Your task to perform on an android device: toggle location history Image 0: 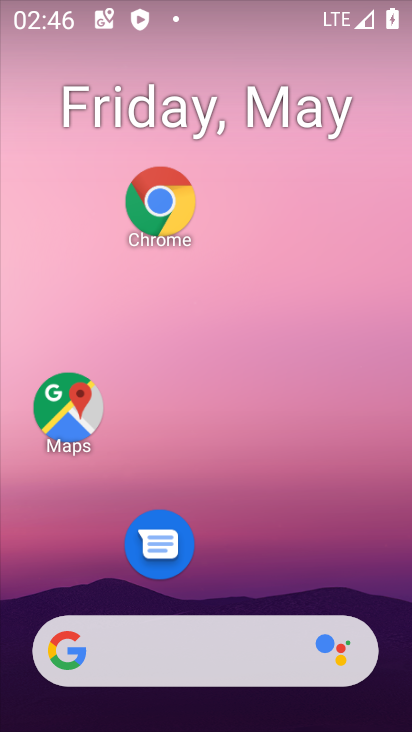
Step 0: drag from (252, 582) to (220, 247)
Your task to perform on an android device: toggle location history Image 1: 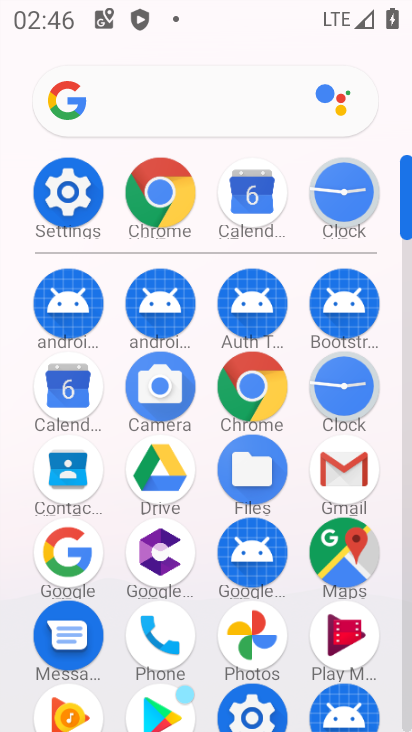
Step 1: click (67, 207)
Your task to perform on an android device: toggle location history Image 2: 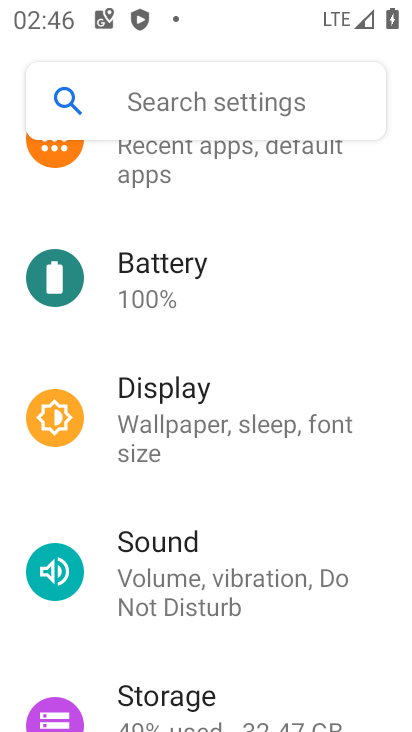
Step 2: drag from (262, 317) to (253, 611)
Your task to perform on an android device: toggle location history Image 3: 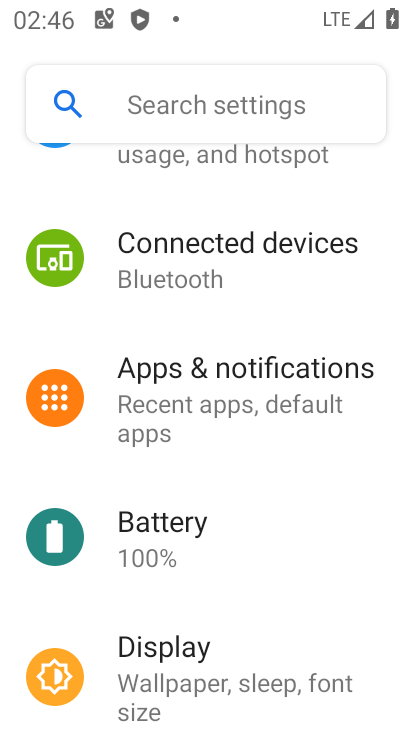
Step 3: drag from (248, 325) to (260, 575)
Your task to perform on an android device: toggle location history Image 4: 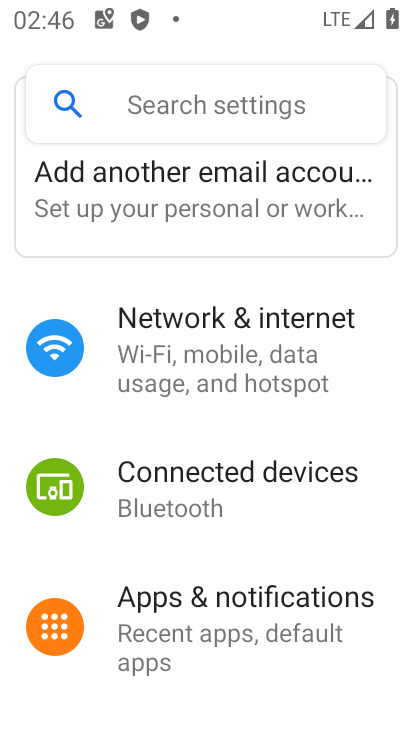
Step 4: drag from (211, 586) to (194, 209)
Your task to perform on an android device: toggle location history Image 5: 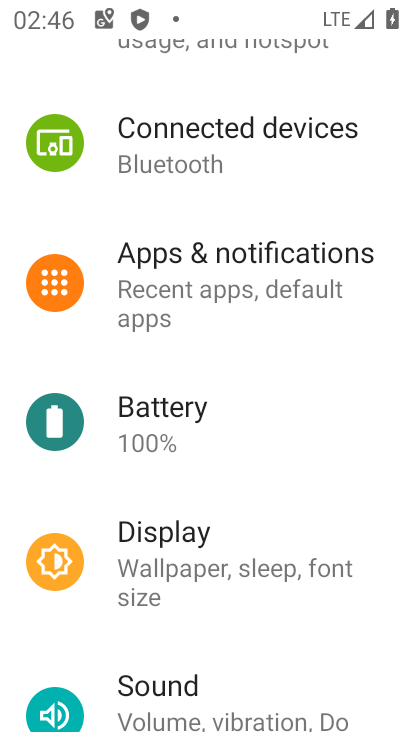
Step 5: drag from (174, 593) to (148, 238)
Your task to perform on an android device: toggle location history Image 6: 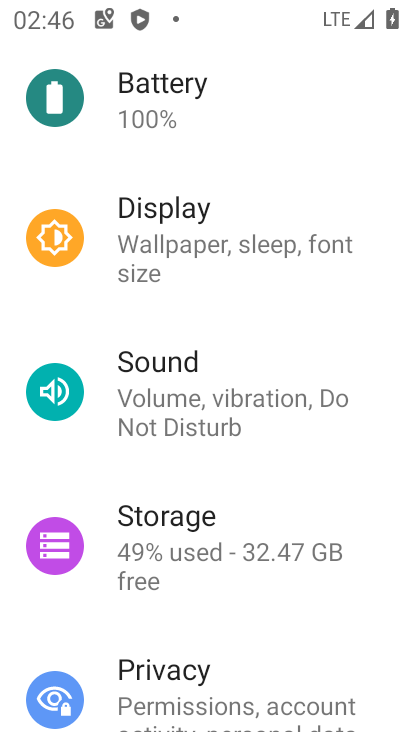
Step 6: drag from (150, 592) to (160, 292)
Your task to perform on an android device: toggle location history Image 7: 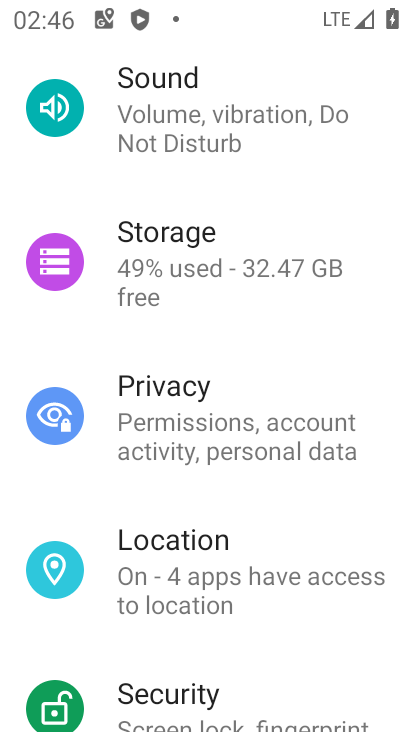
Step 7: click (209, 570)
Your task to perform on an android device: toggle location history Image 8: 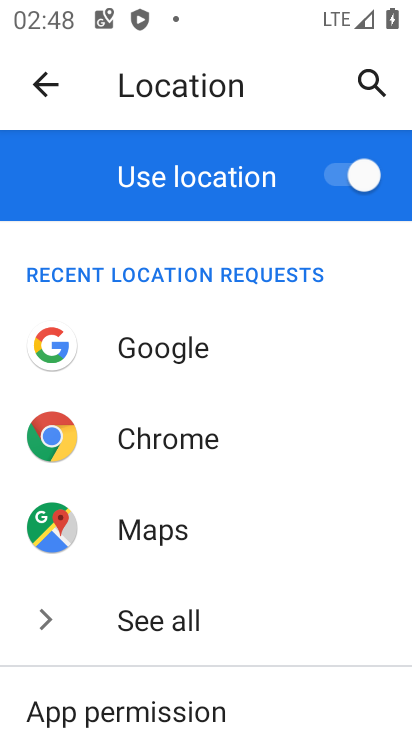
Step 8: drag from (242, 592) to (184, 320)
Your task to perform on an android device: toggle location history Image 9: 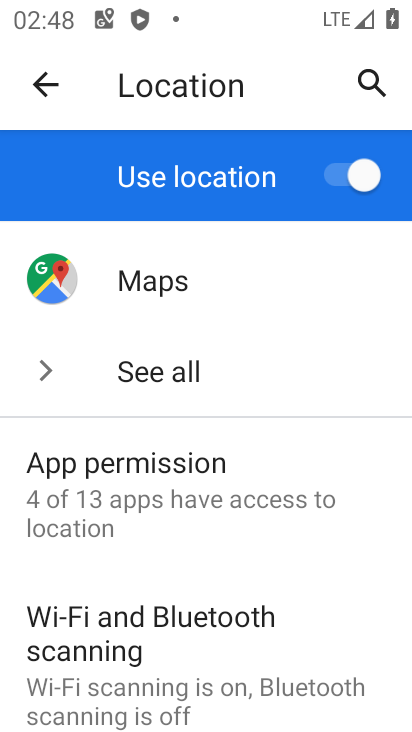
Step 9: drag from (210, 589) to (168, 242)
Your task to perform on an android device: toggle location history Image 10: 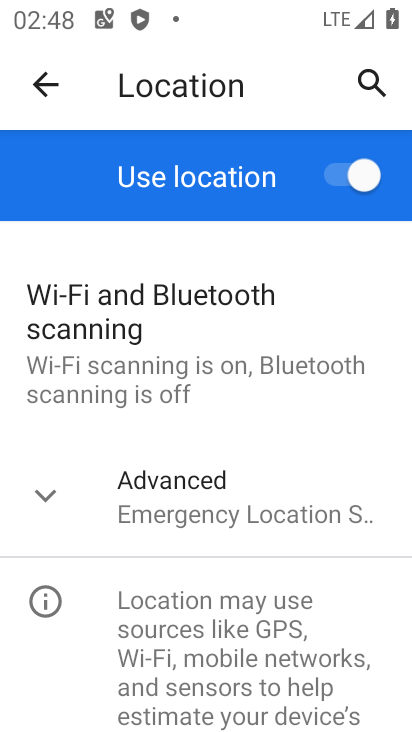
Step 10: drag from (201, 528) to (180, 350)
Your task to perform on an android device: toggle location history Image 11: 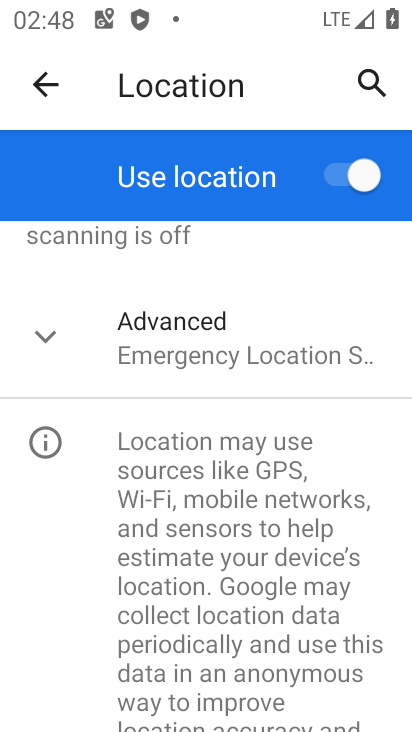
Step 11: click (158, 345)
Your task to perform on an android device: toggle location history Image 12: 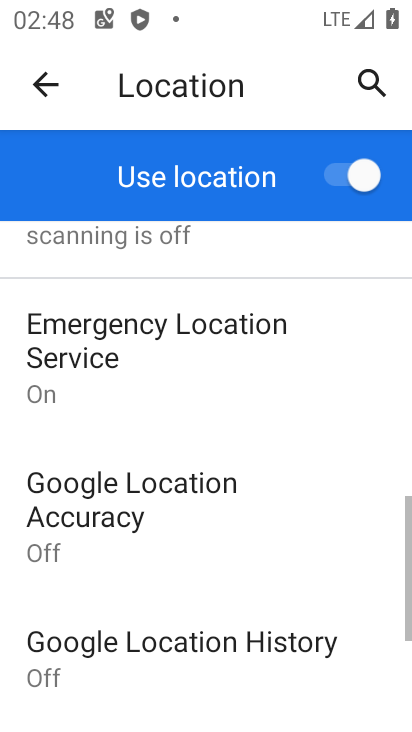
Step 12: drag from (185, 487) to (163, 363)
Your task to perform on an android device: toggle location history Image 13: 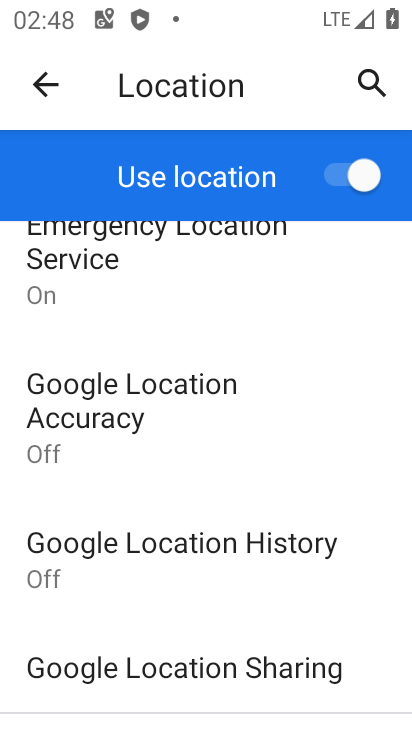
Step 13: click (192, 553)
Your task to perform on an android device: toggle location history Image 14: 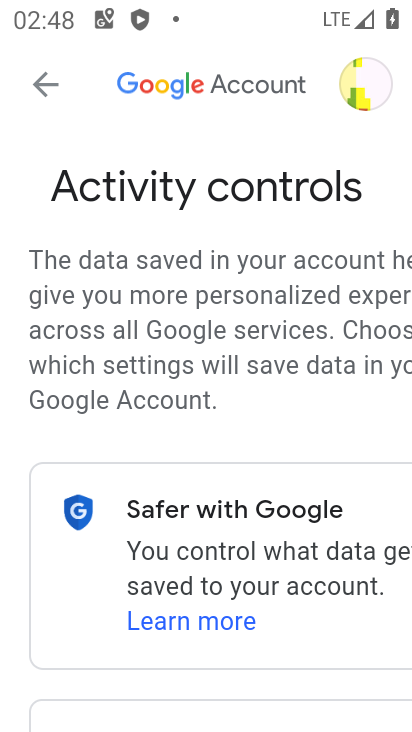
Step 14: drag from (185, 628) to (178, 257)
Your task to perform on an android device: toggle location history Image 15: 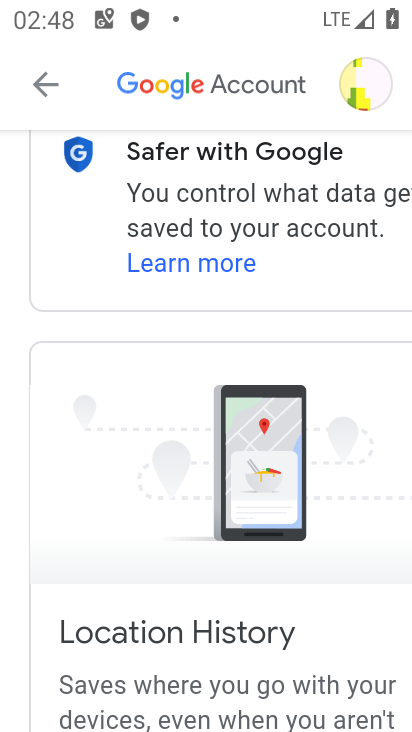
Step 15: drag from (174, 563) to (187, 202)
Your task to perform on an android device: toggle location history Image 16: 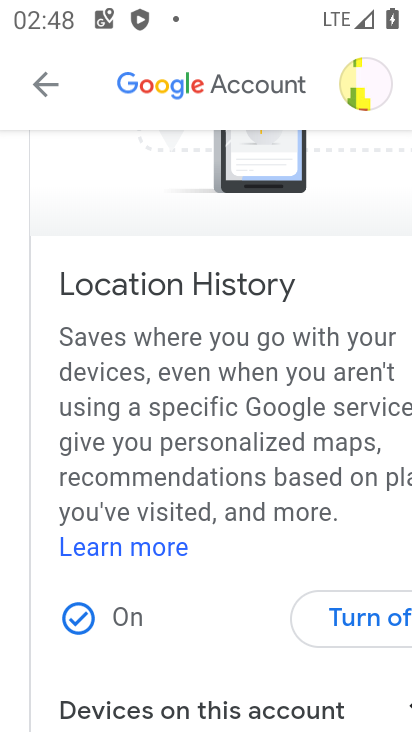
Step 16: click (370, 604)
Your task to perform on an android device: toggle location history Image 17: 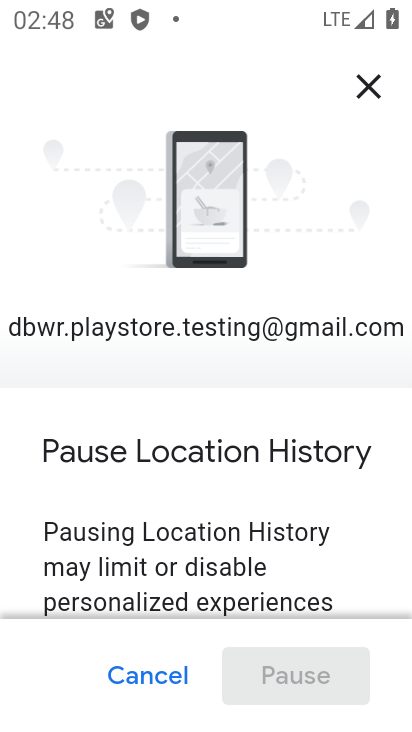
Step 17: drag from (321, 546) to (254, 202)
Your task to perform on an android device: toggle location history Image 18: 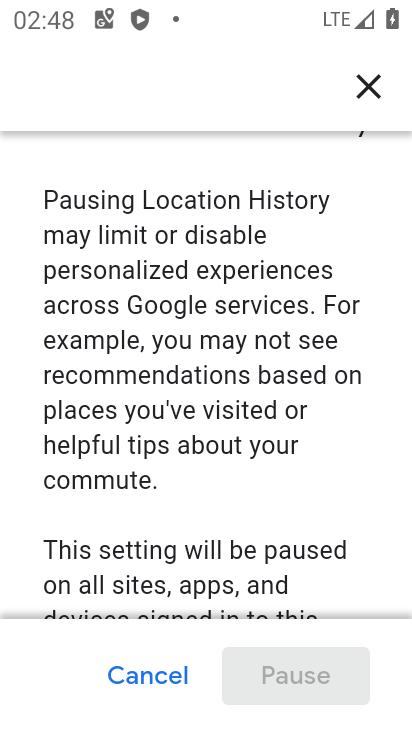
Step 18: drag from (345, 561) to (254, 136)
Your task to perform on an android device: toggle location history Image 19: 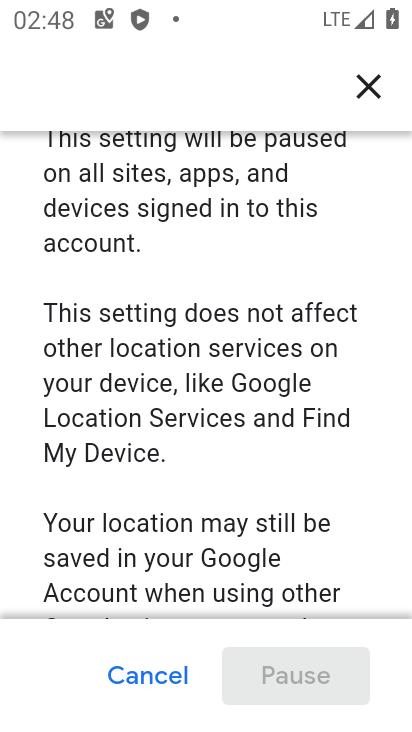
Step 19: drag from (236, 495) to (236, 270)
Your task to perform on an android device: toggle location history Image 20: 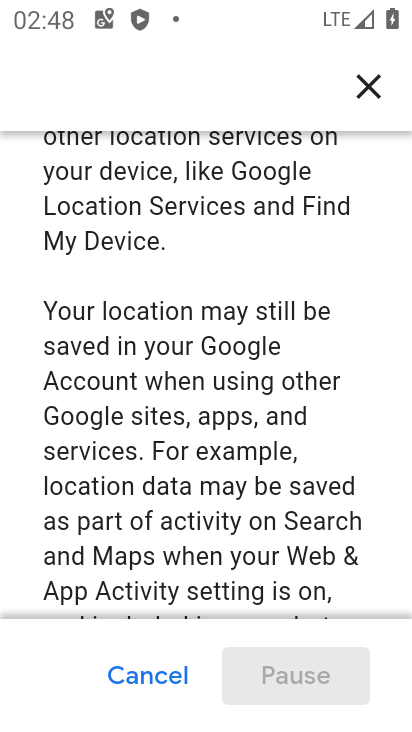
Step 20: drag from (244, 519) to (199, 234)
Your task to perform on an android device: toggle location history Image 21: 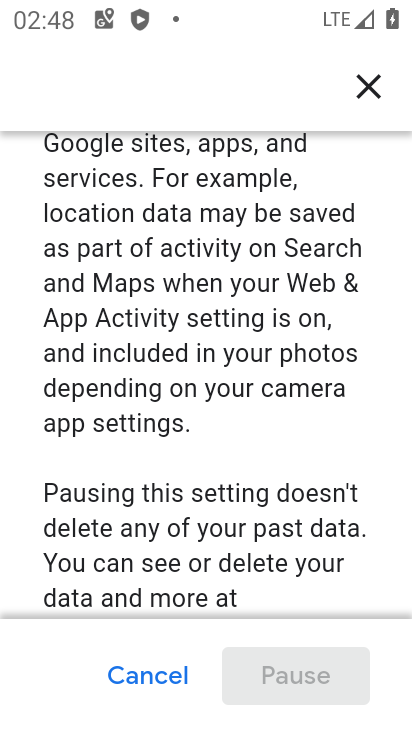
Step 21: drag from (208, 575) to (193, 214)
Your task to perform on an android device: toggle location history Image 22: 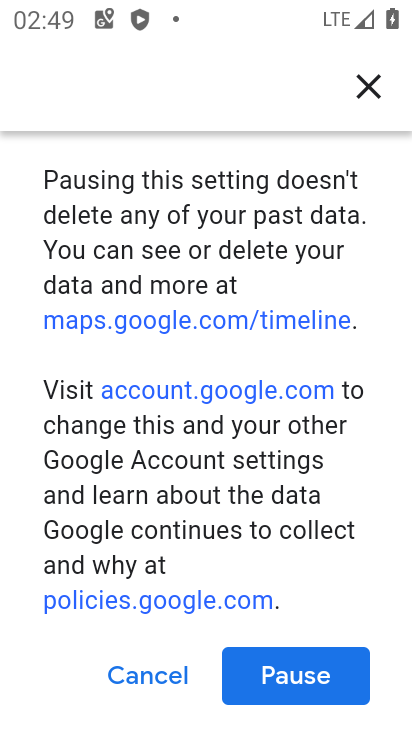
Step 22: click (259, 644)
Your task to perform on an android device: toggle location history Image 23: 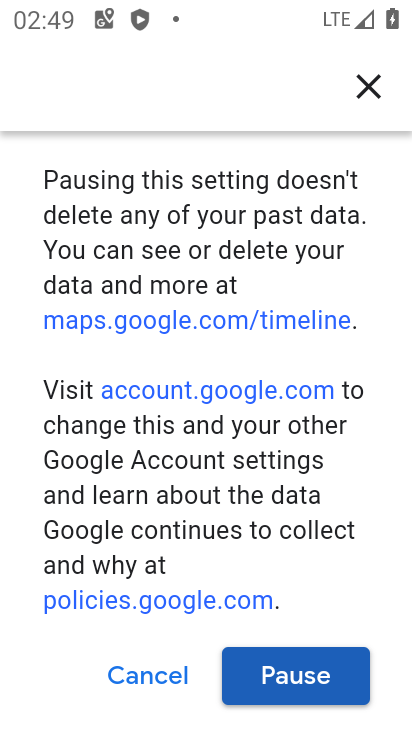
Step 23: click (312, 670)
Your task to perform on an android device: toggle location history Image 24: 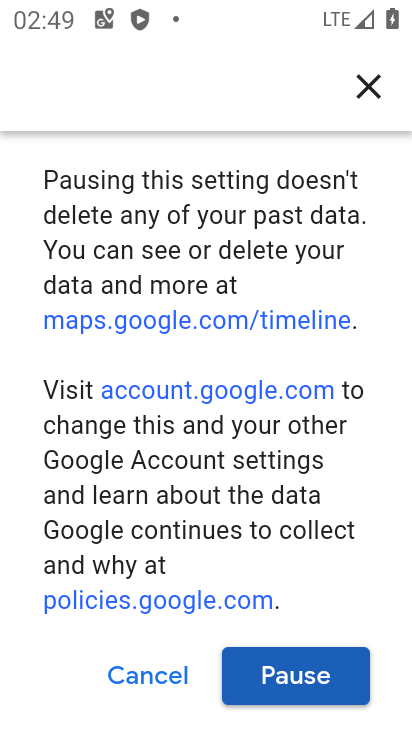
Step 24: click (312, 670)
Your task to perform on an android device: toggle location history Image 25: 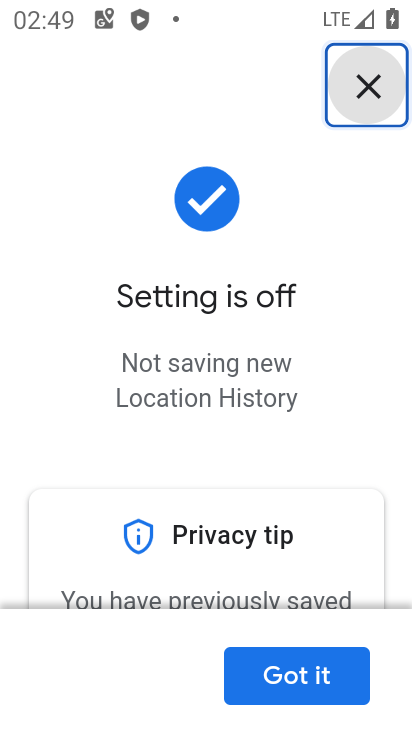
Step 25: drag from (260, 562) to (263, 426)
Your task to perform on an android device: toggle location history Image 26: 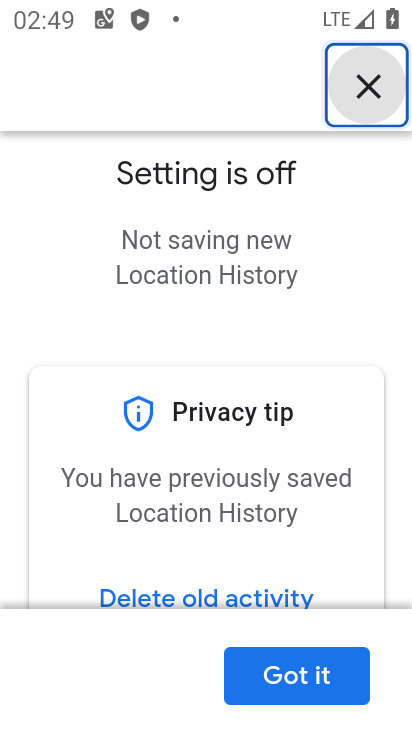
Step 26: click (290, 682)
Your task to perform on an android device: toggle location history Image 27: 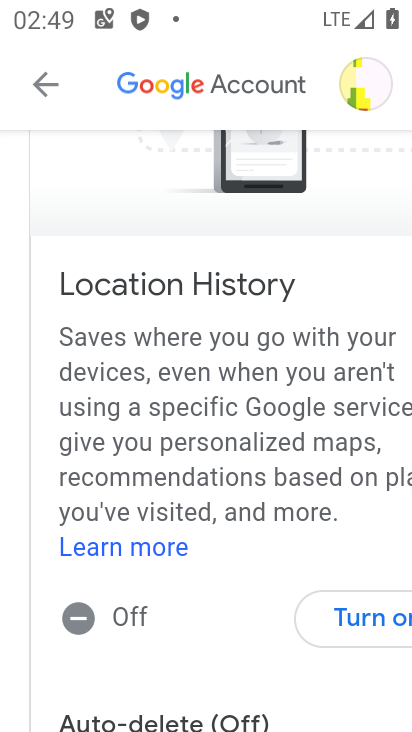
Step 27: task complete